Your task to perform on an android device: toggle notifications settings in the gmail app Image 0: 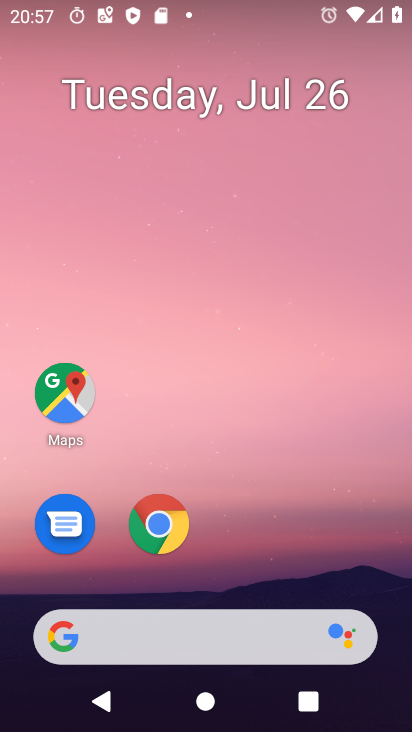
Step 0: drag from (279, 557) to (250, 78)
Your task to perform on an android device: toggle notifications settings in the gmail app Image 1: 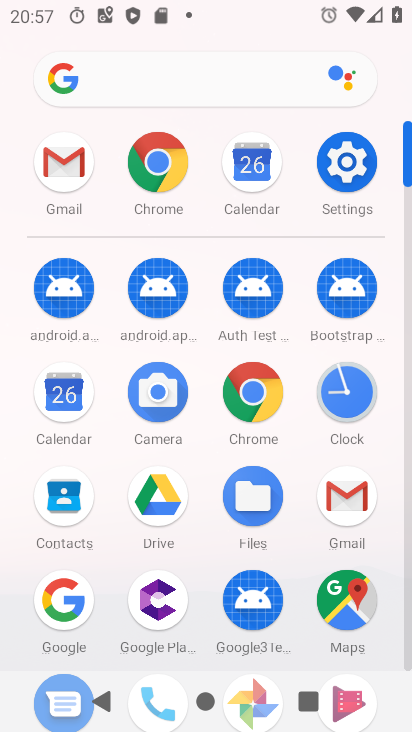
Step 1: click (59, 167)
Your task to perform on an android device: toggle notifications settings in the gmail app Image 2: 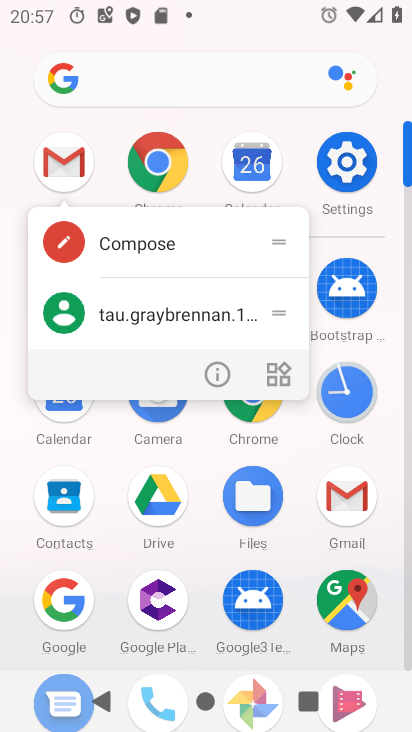
Step 2: click (63, 153)
Your task to perform on an android device: toggle notifications settings in the gmail app Image 3: 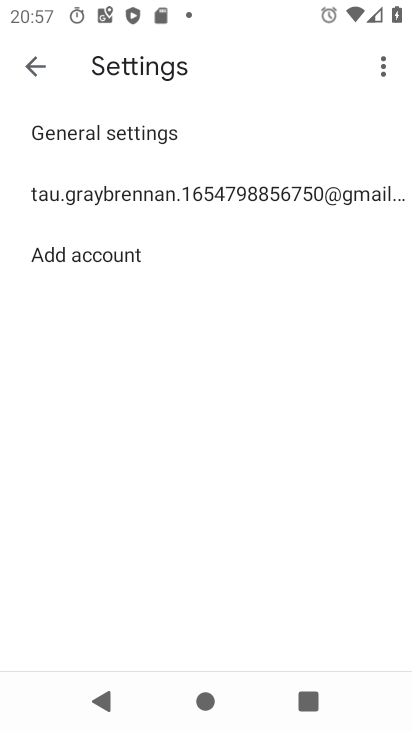
Step 3: click (125, 194)
Your task to perform on an android device: toggle notifications settings in the gmail app Image 4: 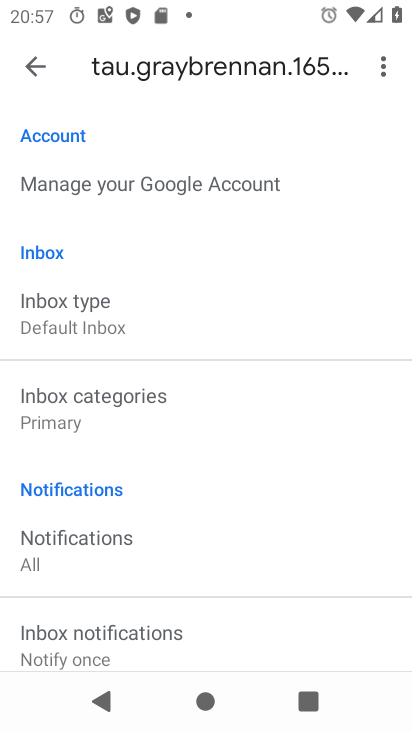
Step 4: drag from (252, 490) to (234, 250)
Your task to perform on an android device: toggle notifications settings in the gmail app Image 5: 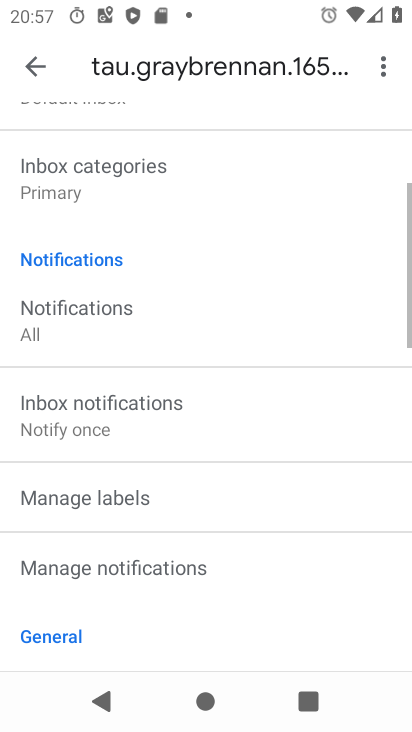
Step 5: drag from (237, 186) to (241, 137)
Your task to perform on an android device: toggle notifications settings in the gmail app Image 6: 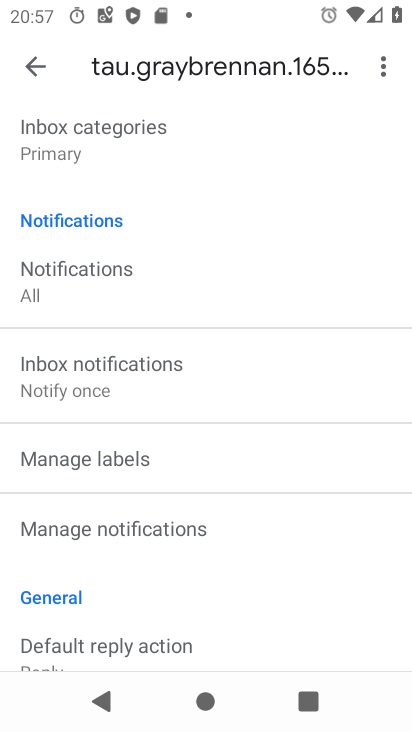
Step 6: click (212, 524)
Your task to perform on an android device: toggle notifications settings in the gmail app Image 7: 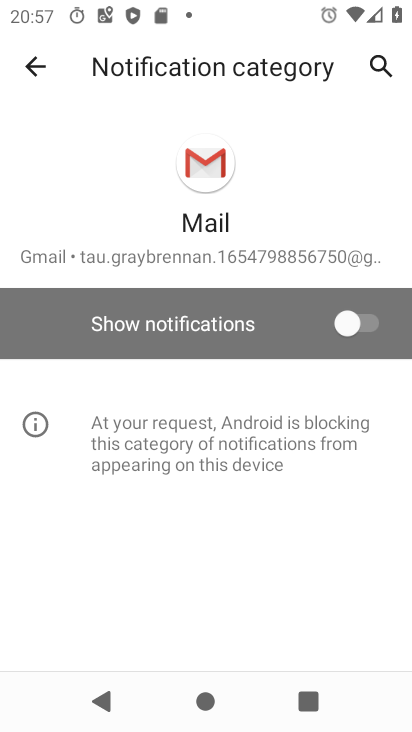
Step 7: click (359, 320)
Your task to perform on an android device: toggle notifications settings in the gmail app Image 8: 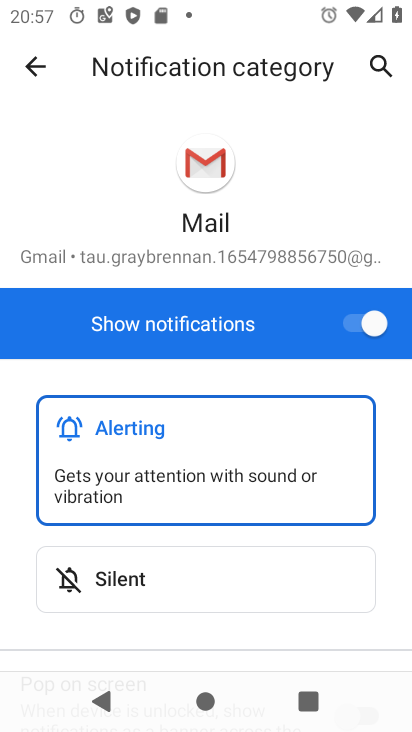
Step 8: task complete